Your task to perform on an android device: turn notification dots on Image 0: 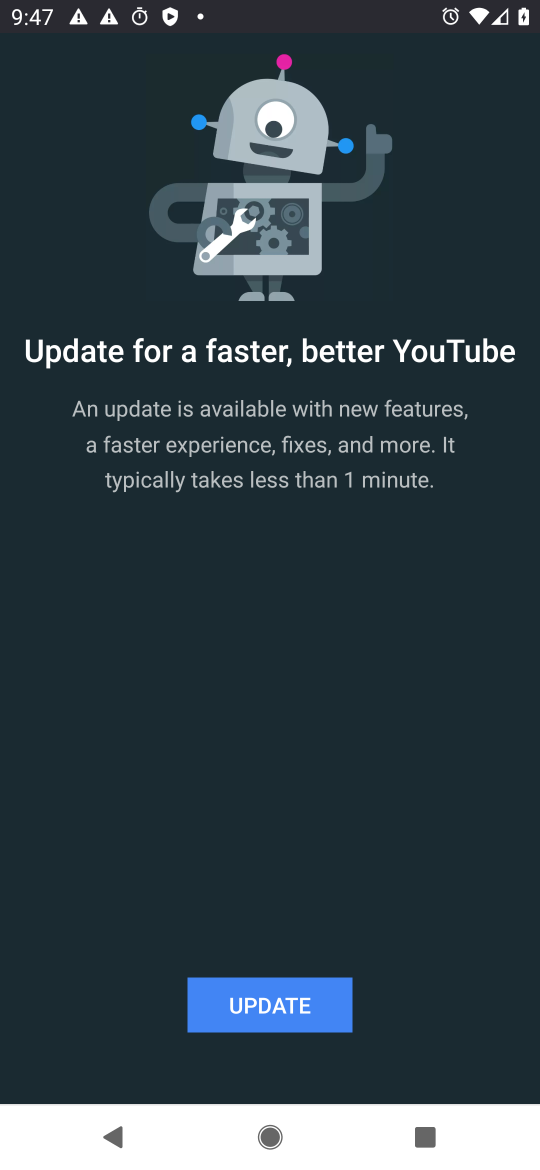
Step 0: press home button
Your task to perform on an android device: turn notification dots on Image 1: 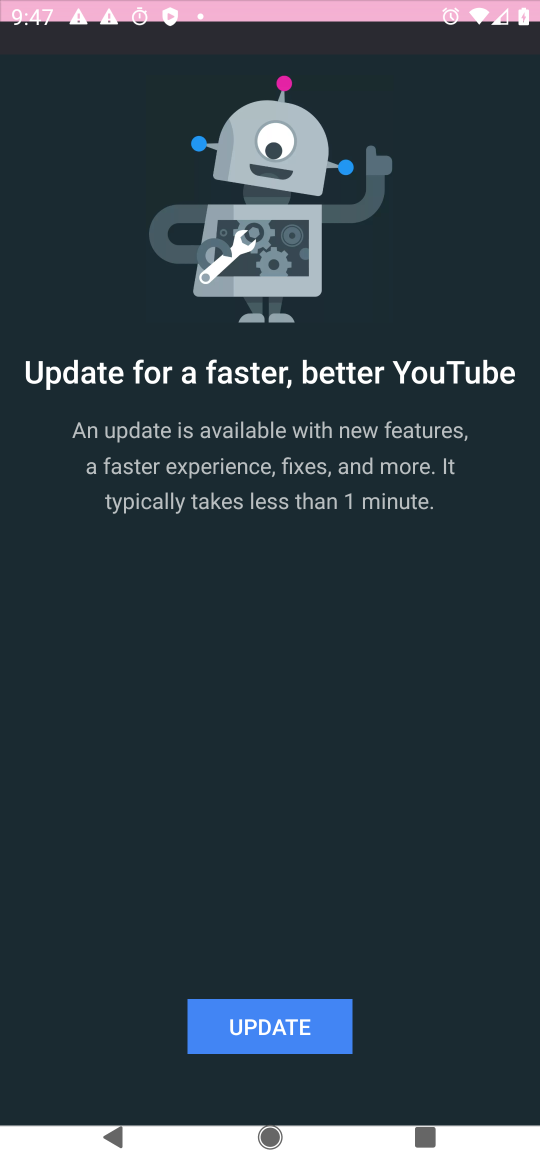
Step 1: drag from (401, 518) to (427, 326)
Your task to perform on an android device: turn notification dots on Image 2: 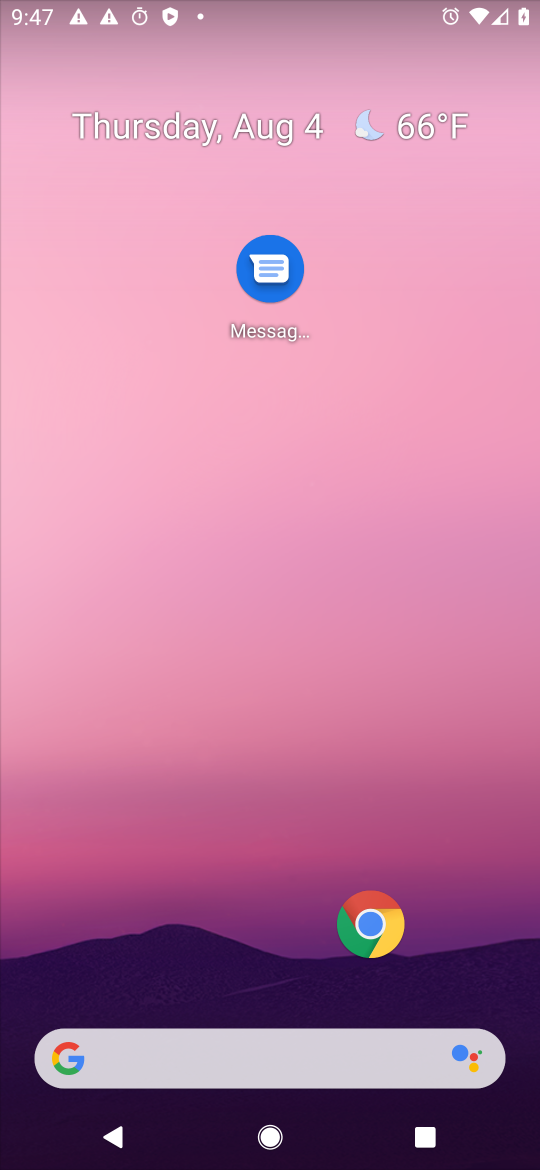
Step 2: drag from (267, 996) to (343, 257)
Your task to perform on an android device: turn notification dots on Image 3: 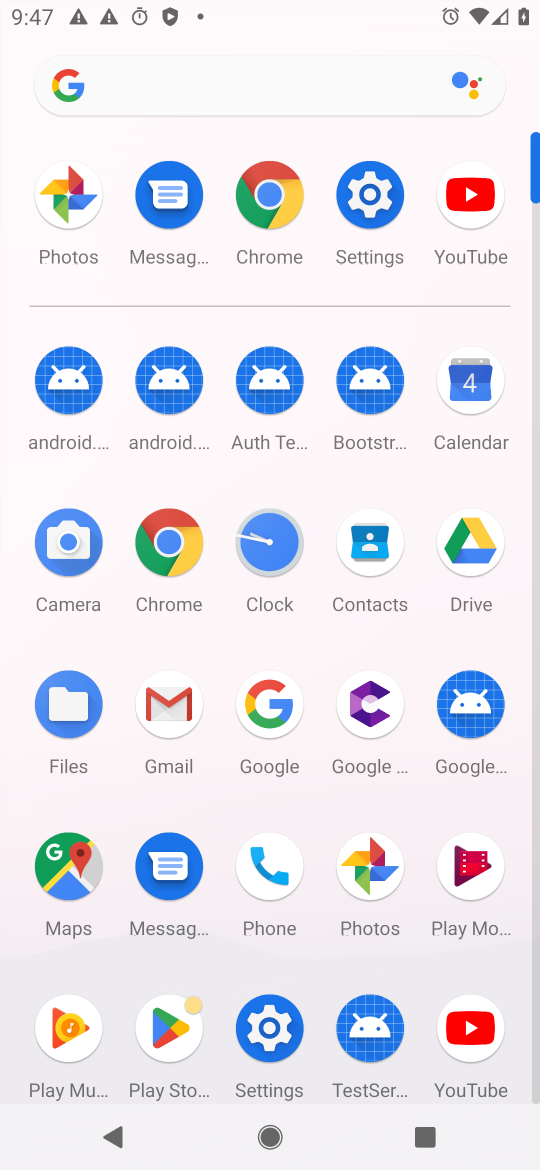
Step 3: click (366, 183)
Your task to perform on an android device: turn notification dots on Image 4: 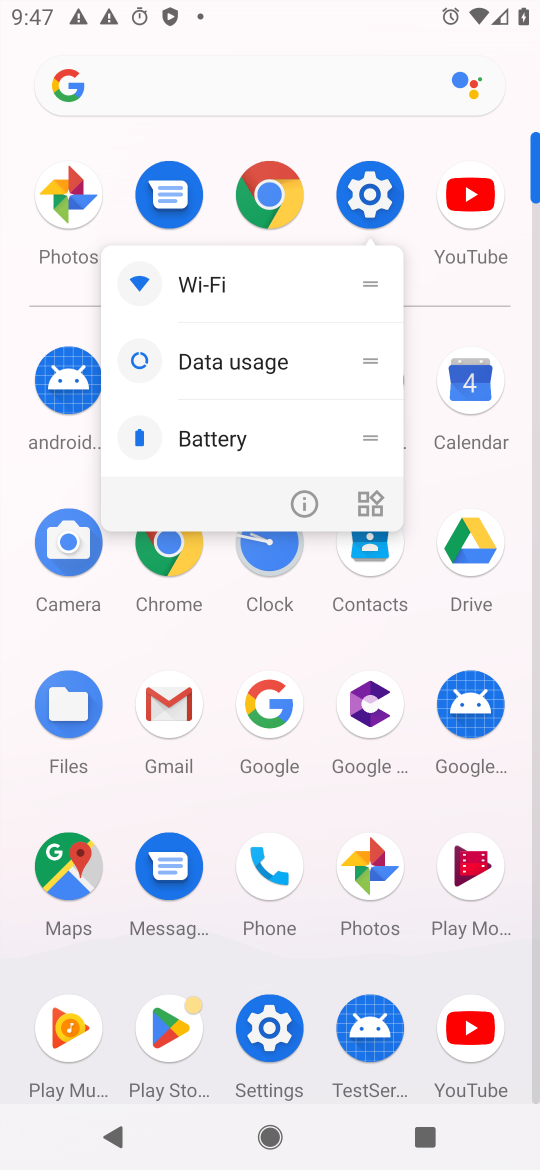
Step 4: click (284, 504)
Your task to perform on an android device: turn notification dots on Image 5: 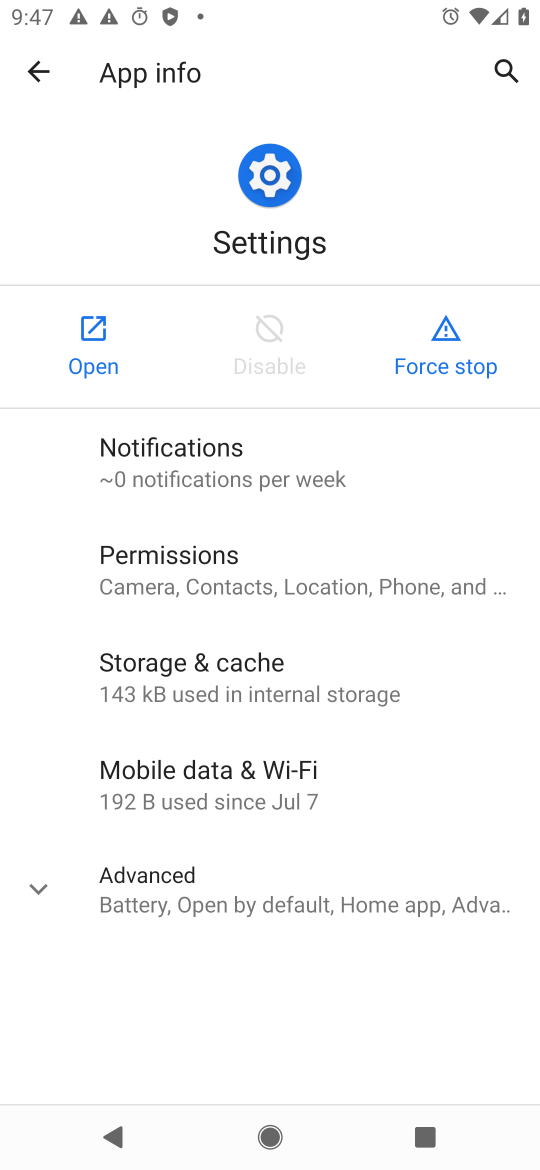
Step 5: click (97, 342)
Your task to perform on an android device: turn notification dots on Image 6: 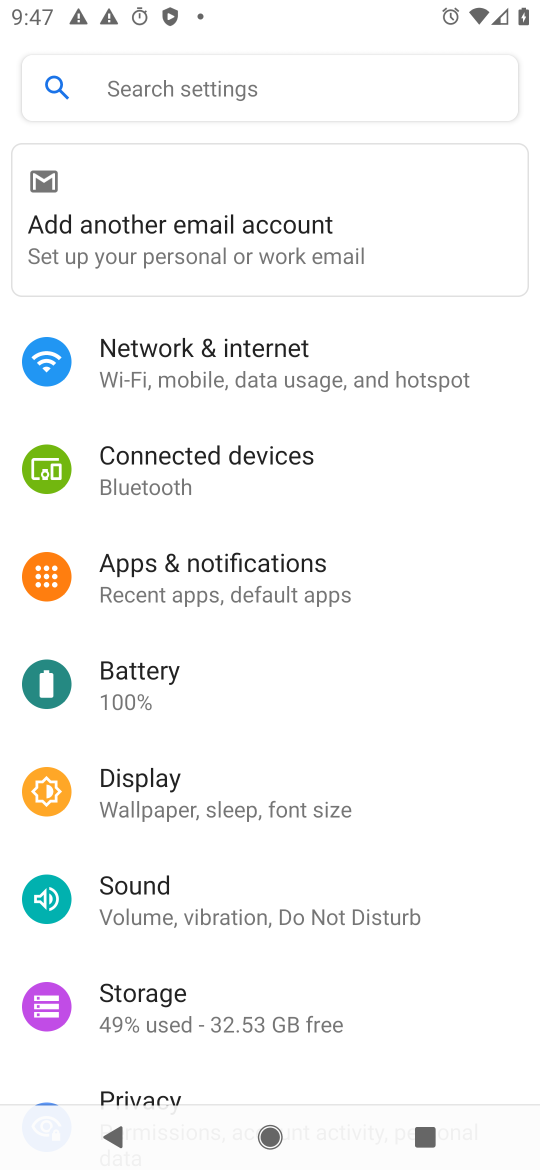
Step 6: click (220, 581)
Your task to perform on an android device: turn notification dots on Image 7: 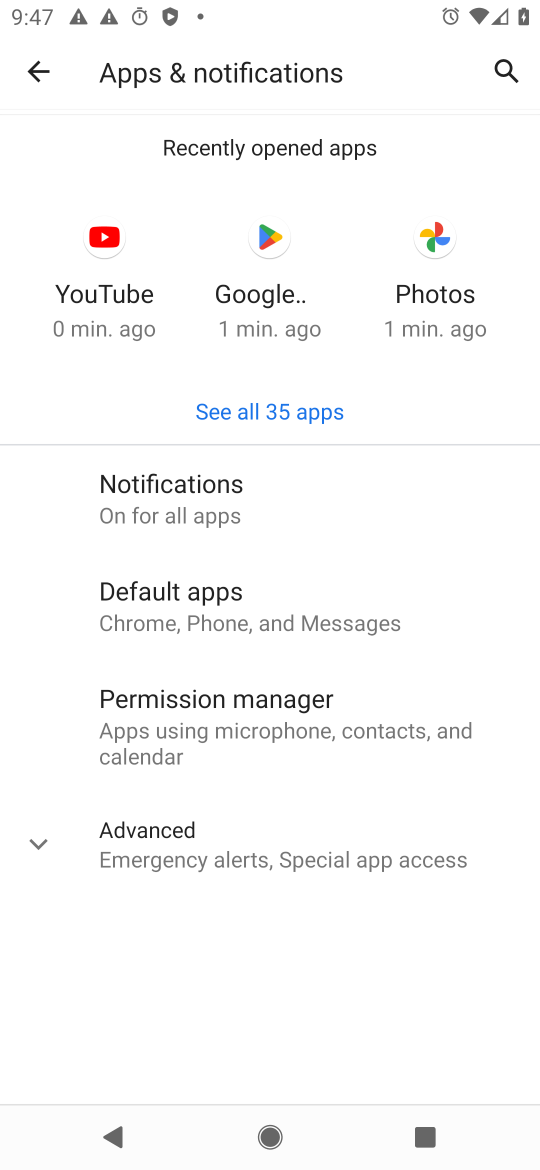
Step 7: click (231, 503)
Your task to perform on an android device: turn notification dots on Image 8: 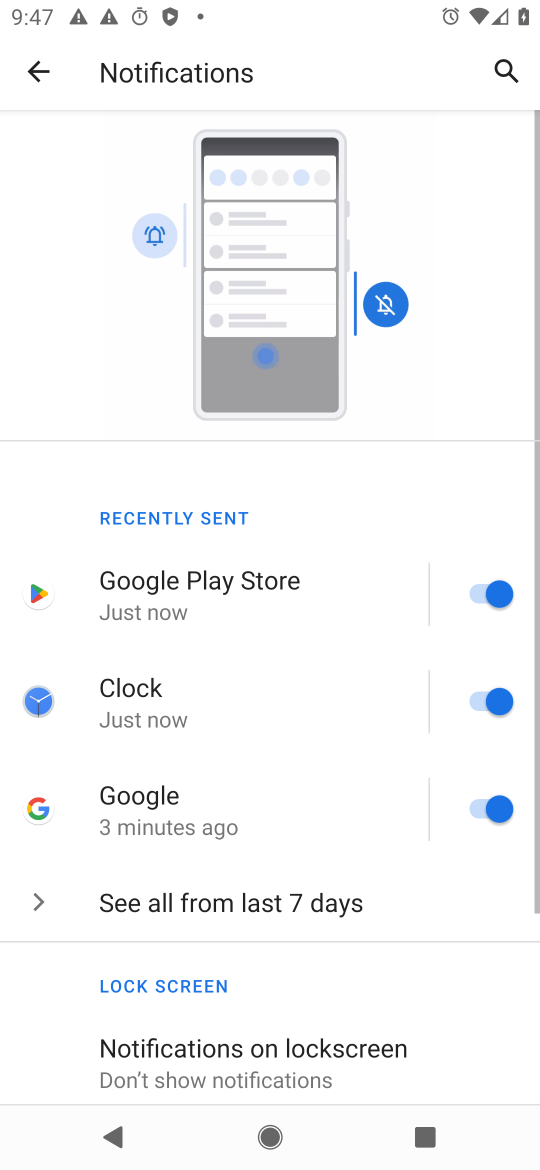
Step 8: drag from (264, 1042) to (416, 0)
Your task to perform on an android device: turn notification dots on Image 9: 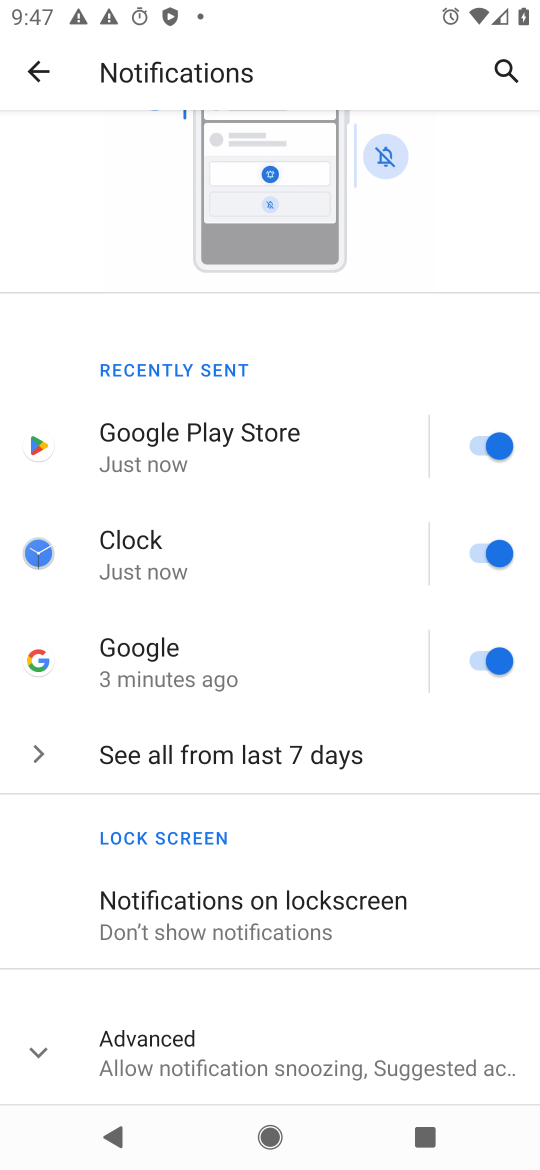
Step 9: click (165, 1053)
Your task to perform on an android device: turn notification dots on Image 10: 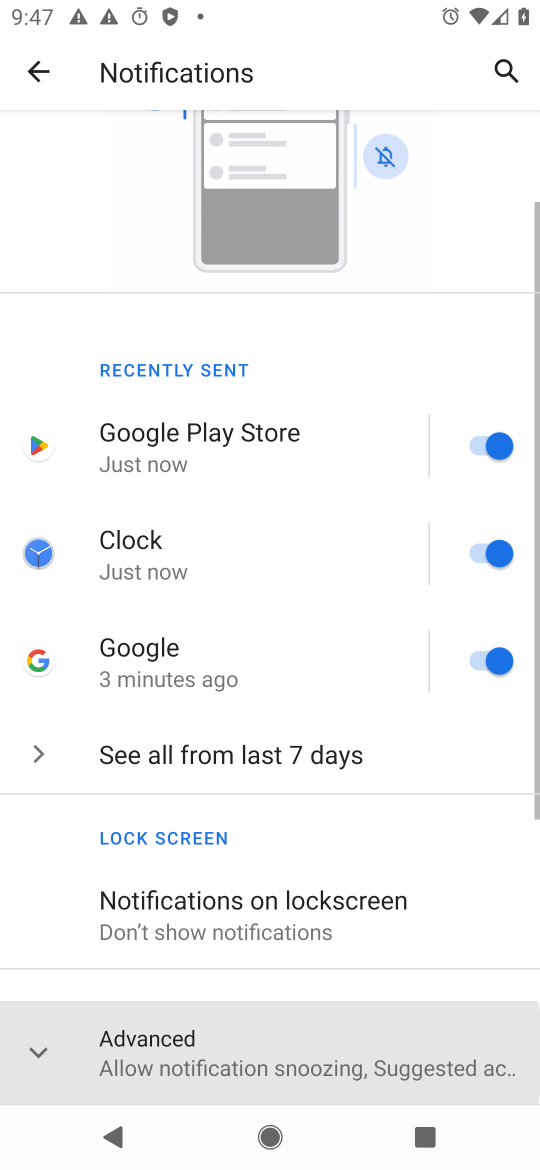
Step 10: task complete